Your task to perform on an android device: check android version Image 0: 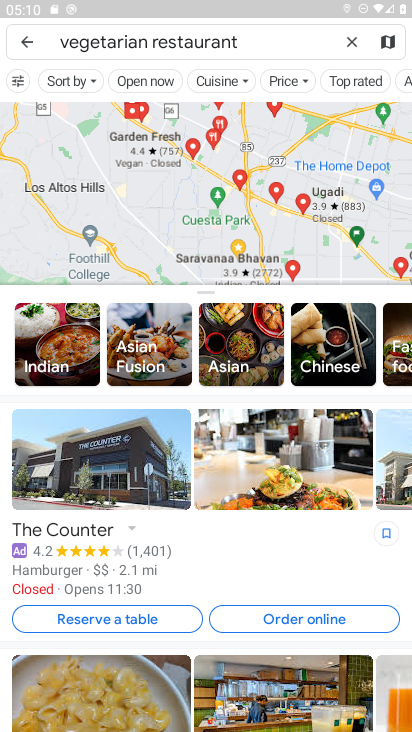
Step 0: press home button
Your task to perform on an android device: check android version Image 1: 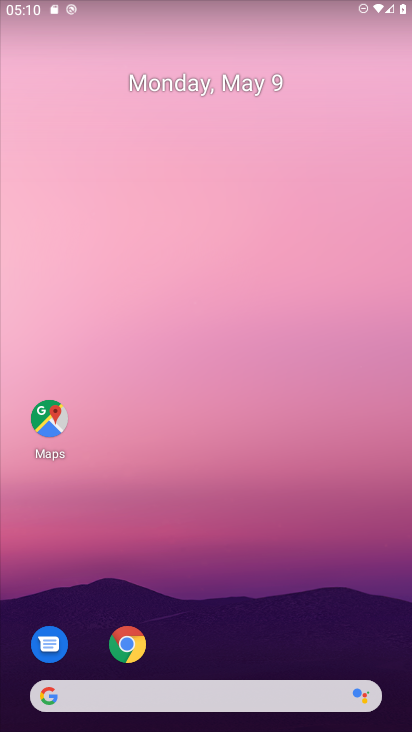
Step 1: drag from (255, 630) to (237, 145)
Your task to perform on an android device: check android version Image 2: 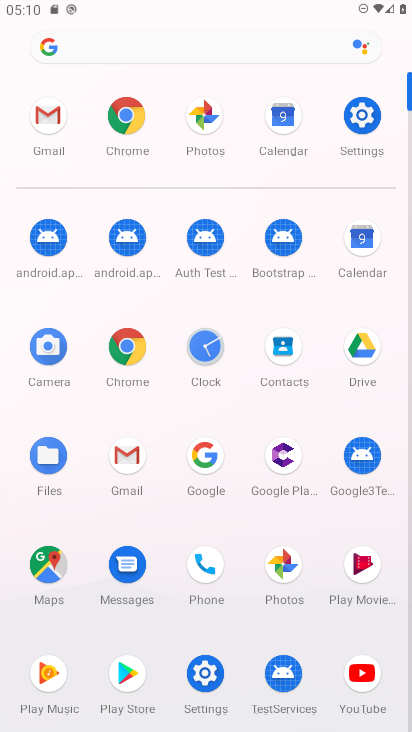
Step 2: click (358, 114)
Your task to perform on an android device: check android version Image 3: 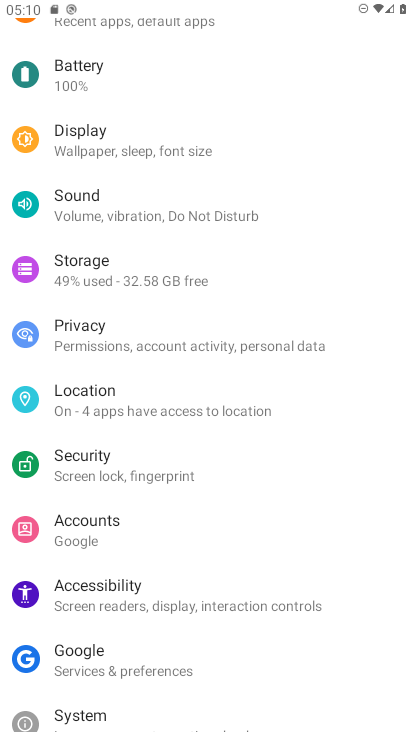
Step 3: drag from (150, 589) to (170, 424)
Your task to perform on an android device: check android version Image 4: 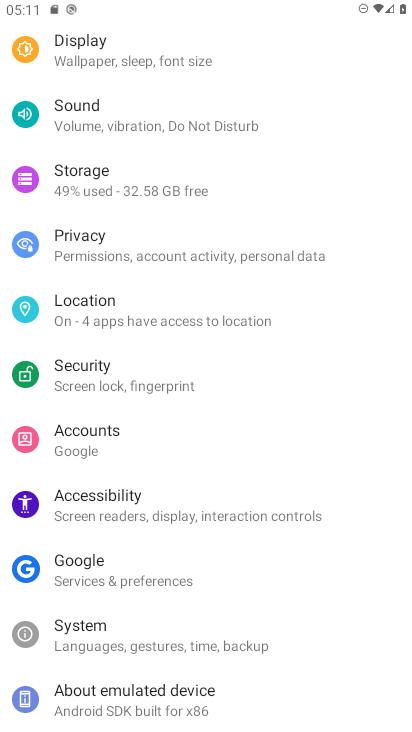
Step 4: click (145, 695)
Your task to perform on an android device: check android version Image 5: 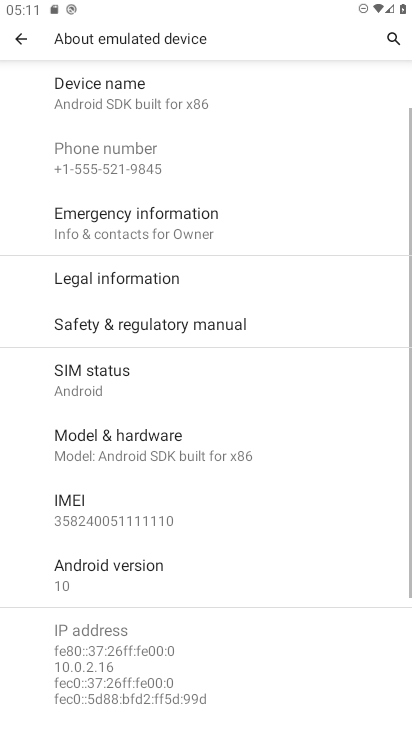
Step 5: click (97, 568)
Your task to perform on an android device: check android version Image 6: 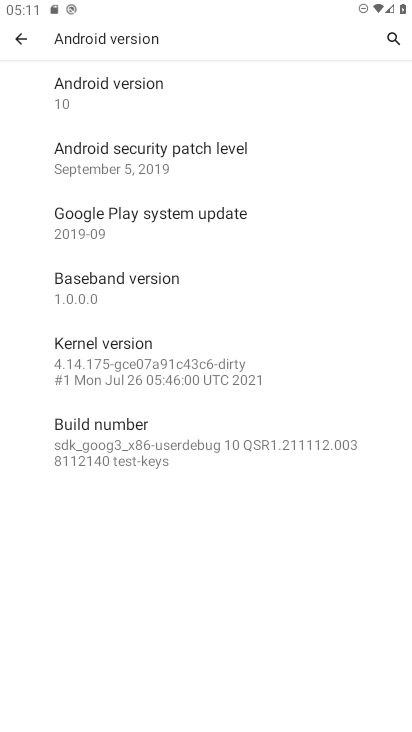
Step 6: task complete